Your task to perform on an android device: Find coffee shops on Maps Image 0: 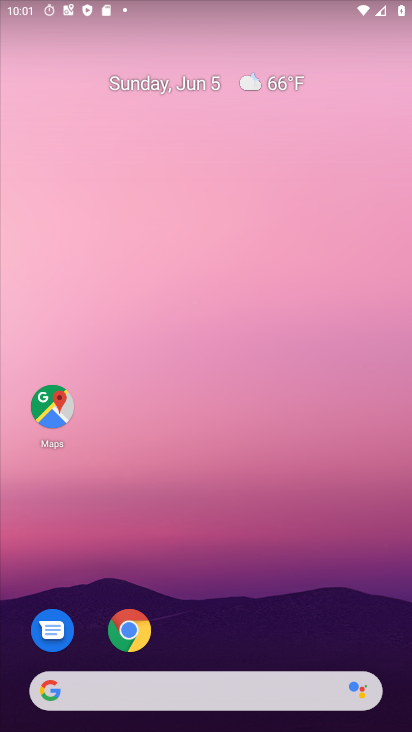
Step 0: drag from (221, 730) to (230, 37)
Your task to perform on an android device: Find coffee shops on Maps Image 1: 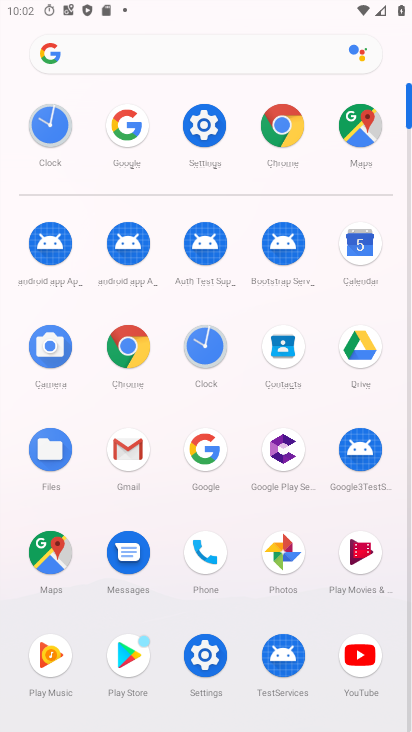
Step 1: click (50, 552)
Your task to perform on an android device: Find coffee shops on Maps Image 2: 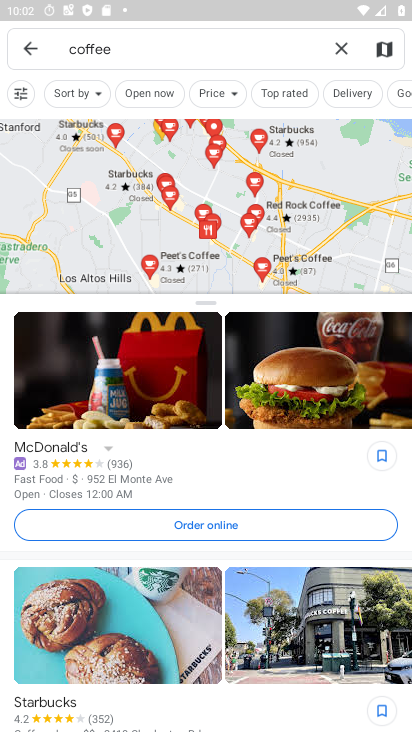
Step 2: click (173, 51)
Your task to perform on an android device: Find coffee shops on Maps Image 3: 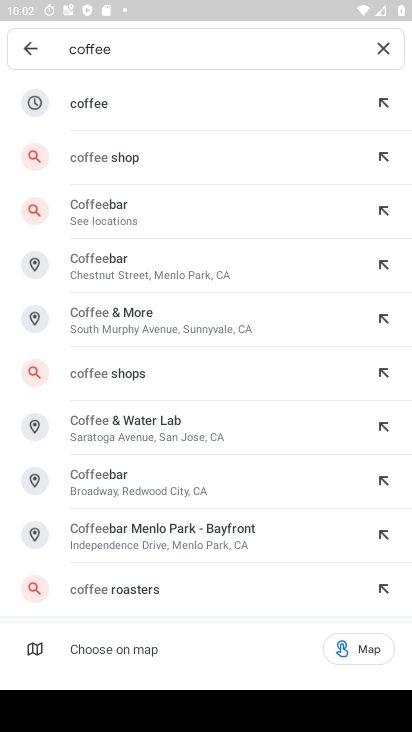
Step 3: type " shops"
Your task to perform on an android device: Find coffee shops on Maps Image 4: 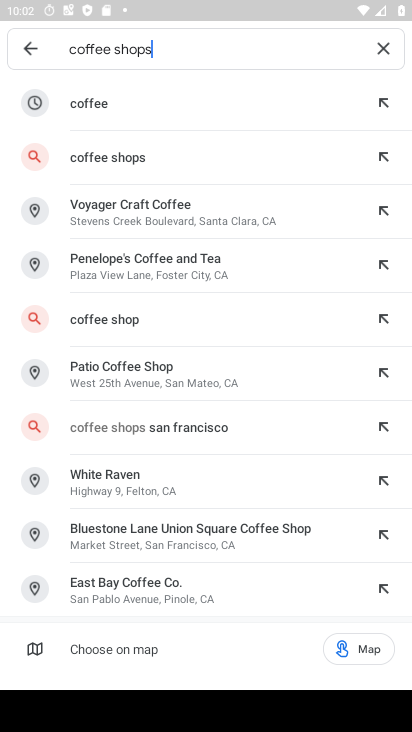
Step 4: click (126, 162)
Your task to perform on an android device: Find coffee shops on Maps Image 5: 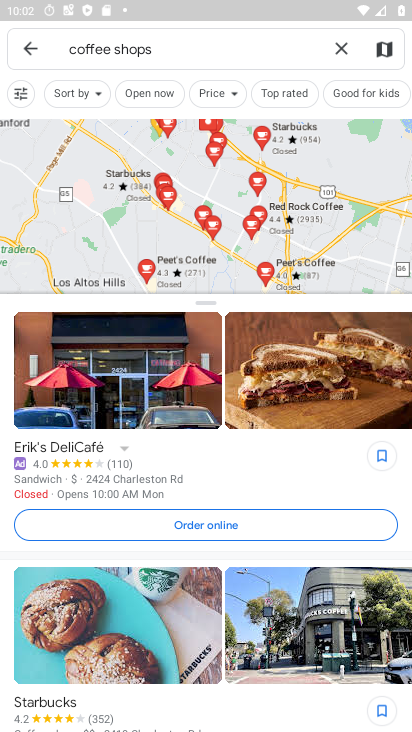
Step 5: task complete